Your task to perform on an android device: set the timer Image 0: 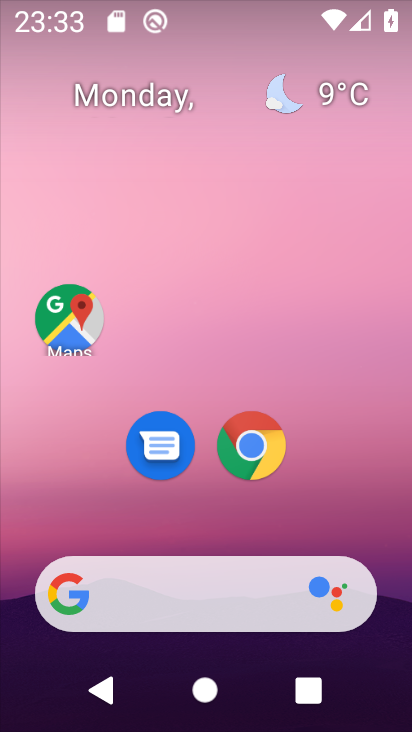
Step 0: drag from (346, 537) to (369, 143)
Your task to perform on an android device: set the timer Image 1: 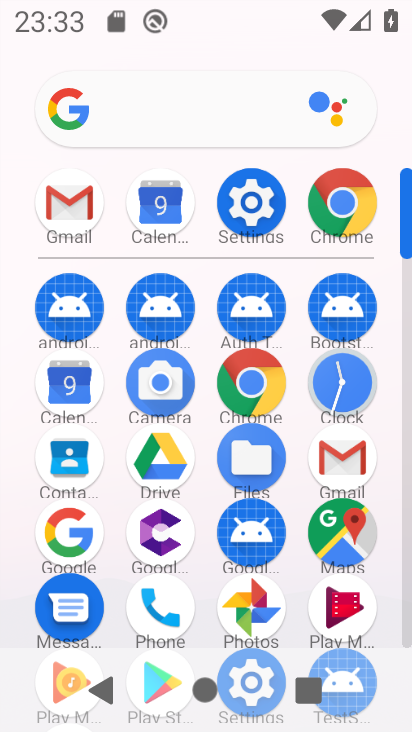
Step 1: click (343, 385)
Your task to perform on an android device: set the timer Image 2: 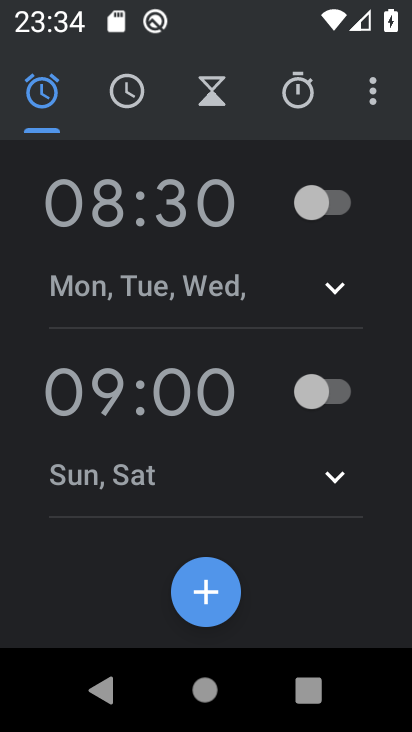
Step 2: click (213, 92)
Your task to perform on an android device: set the timer Image 3: 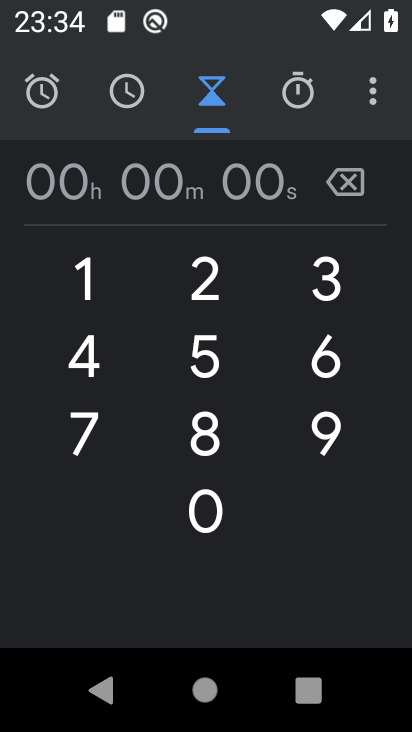
Step 3: click (203, 373)
Your task to perform on an android device: set the timer Image 4: 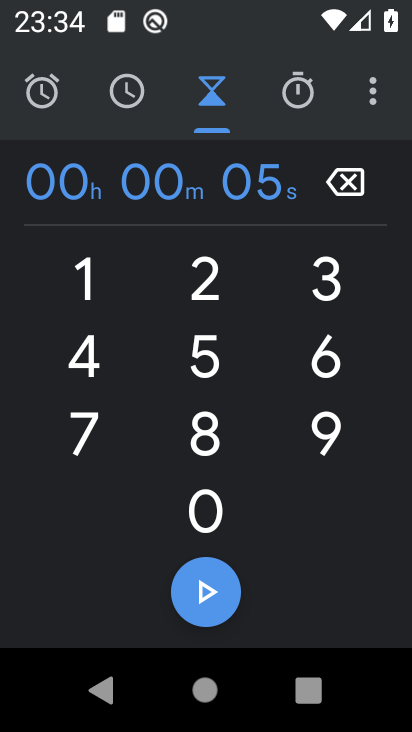
Step 4: click (197, 417)
Your task to perform on an android device: set the timer Image 5: 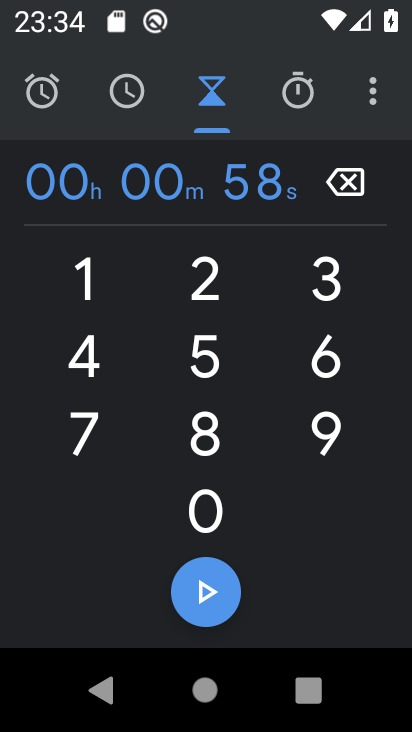
Step 5: click (223, 283)
Your task to perform on an android device: set the timer Image 6: 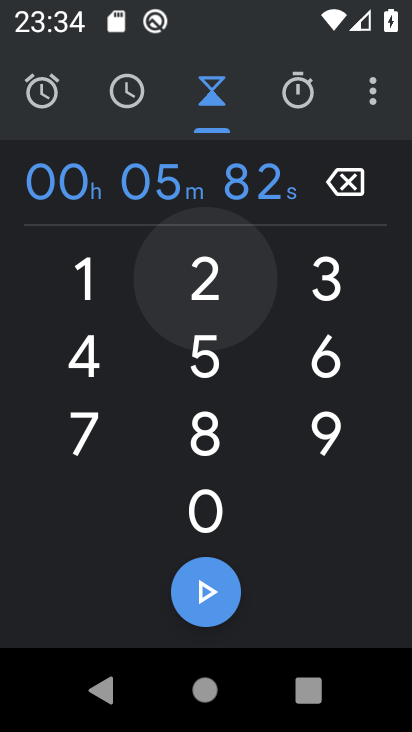
Step 6: click (320, 279)
Your task to perform on an android device: set the timer Image 7: 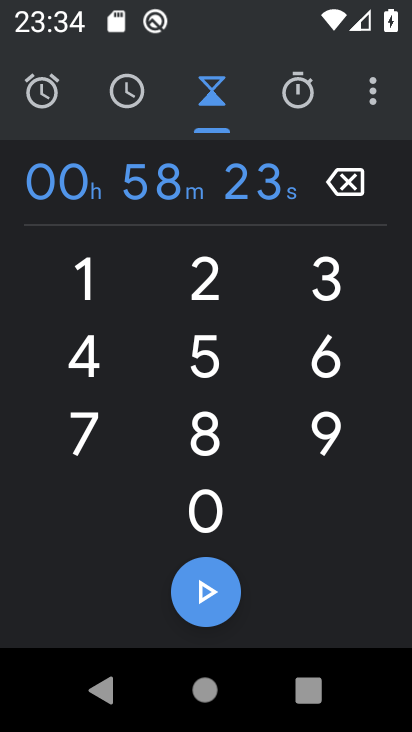
Step 7: click (171, 355)
Your task to perform on an android device: set the timer Image 8: 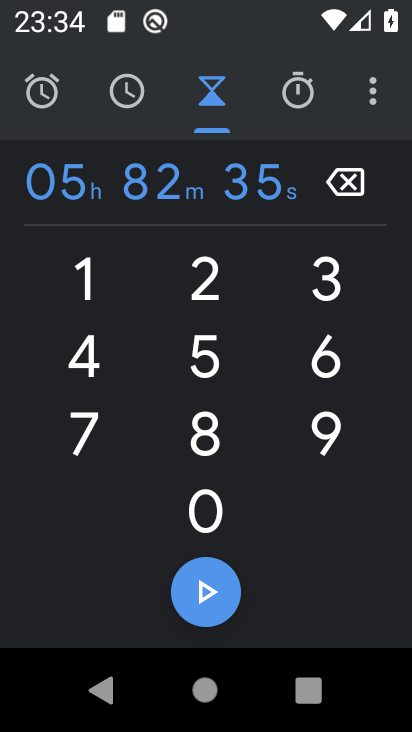
Step 8: click (340, 362)
Your task to perform on an android device: set the timer Image 9: 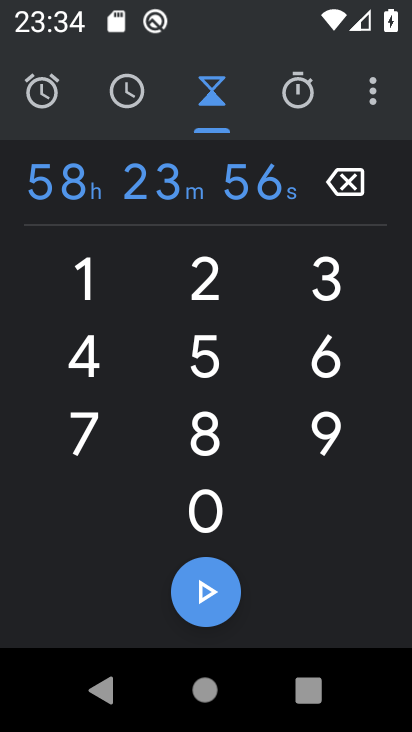
Step 9: click (211, 597)
Your task to perform on an android device: set the timer Image 10: 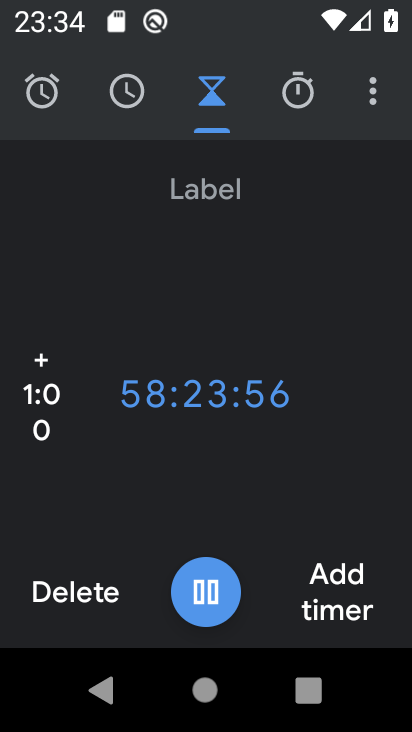
Step 10: task complete